Your task to perform on an android device: set an alarm Image 0: 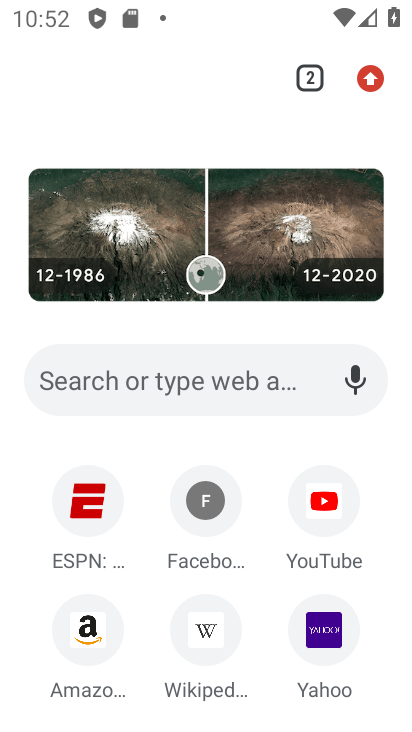
Step 0: press home button
Your task to perform on an android device: set an alarm Image 1: 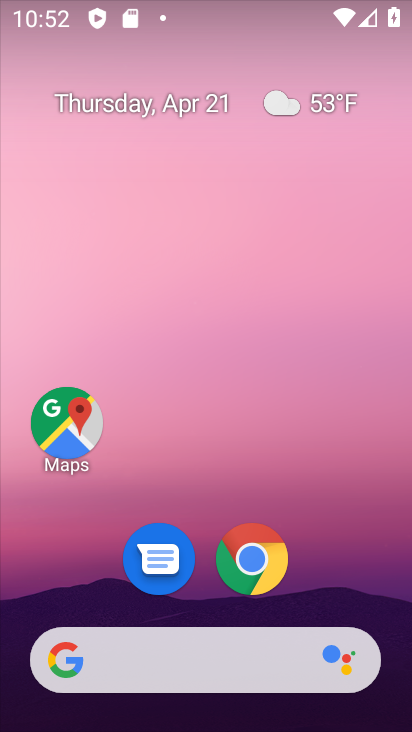
Step 1: drag from (233, 578) to (204, 178)
Your task to perform on an android device: set an alarm Image 2: 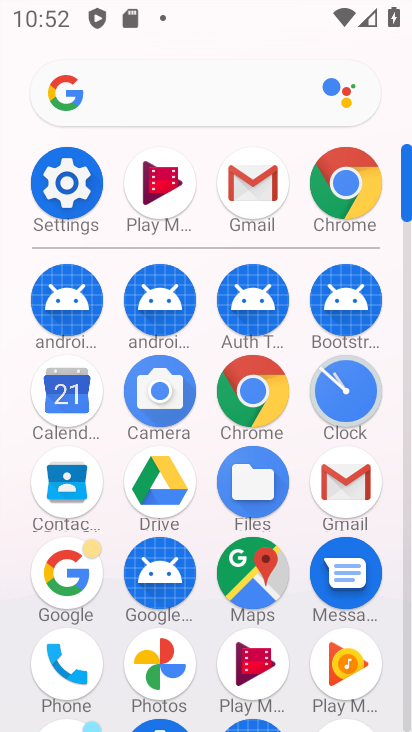
Step 2: click (333, 397)
Your task to perform on an android device: set an alarm Image 3: 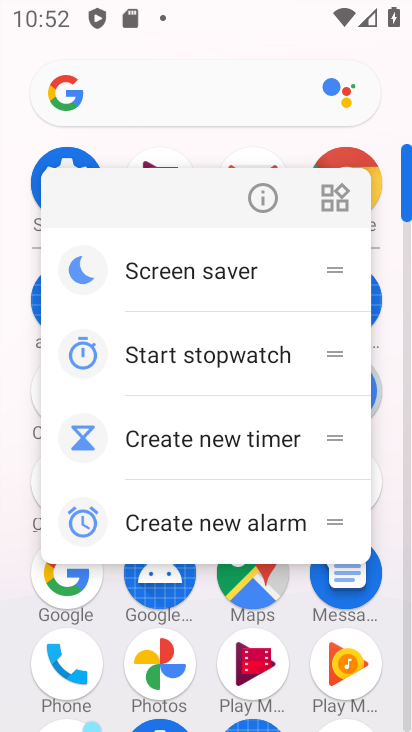
Step 3: click (377, 386)
Your task to perform on an android device: set an alarm Image 4: 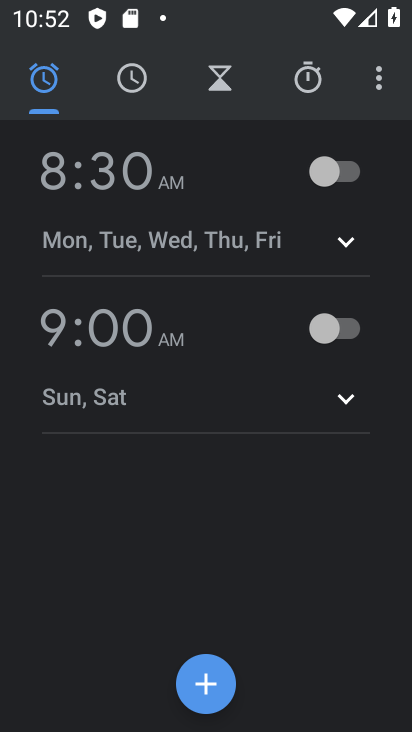
Step 4: click (342, 183)
Your task to perform on an android device: set an alarm Image 5: 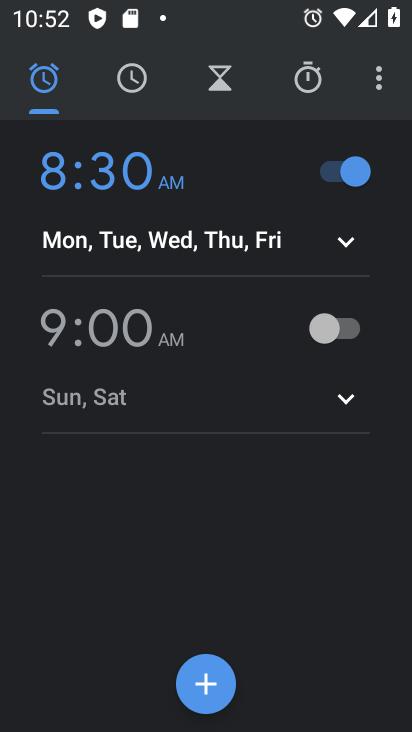
Step 5: task complete